Your task to perform on an android device: see tabs open on other devices in the chrome app Image 0: 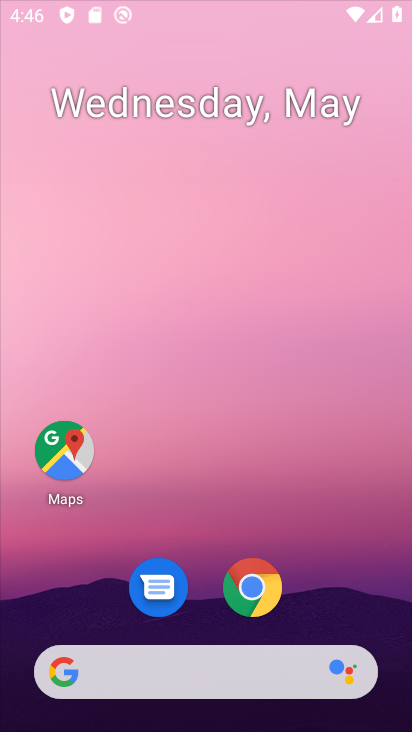
Step 0: click (194, 216)
Your task to perform on an android device: see tabs open on other devices in the chrome app Image 1: 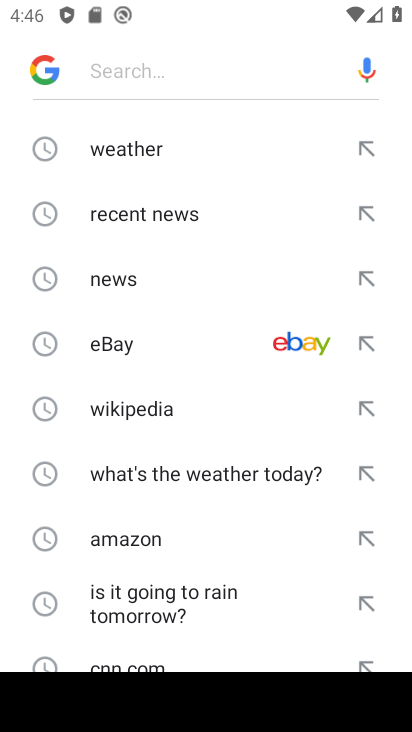
Step 1: press back button
Your task to perform on an android device: see tabs open on other devices in the chrome app Image 2: 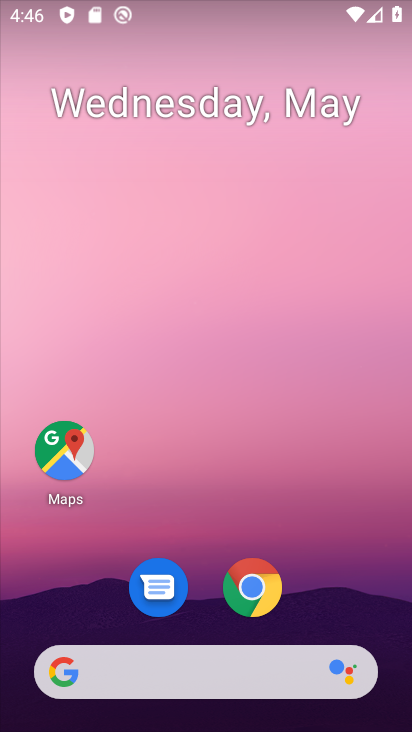
Step 2: drag from (314, 638) to (177, 207)
Your task to perform on an android device: see tabs open on other devices in the chrome app Image 3: 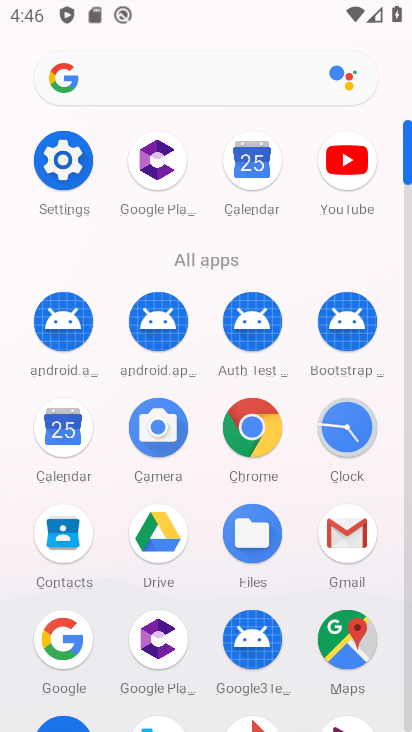
Step 3: click (245, 419)
Your task to perform on an android device: see tabs open on other devices in the chrome app Image 4: 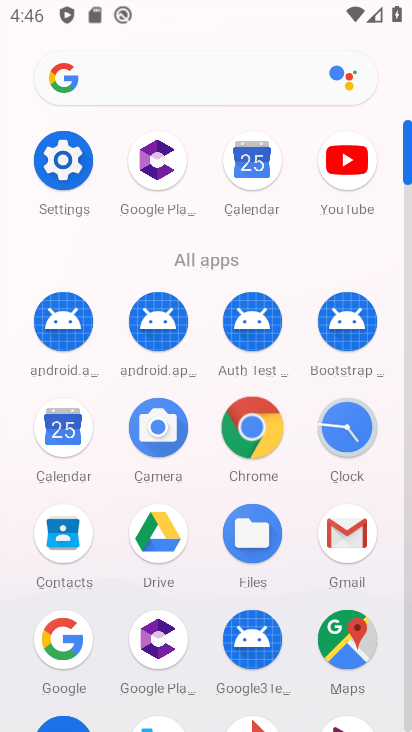
Step 4: click (245, 419)
Your task to perform on an android device: see tabs open on other devices in the chrome app Image 5: 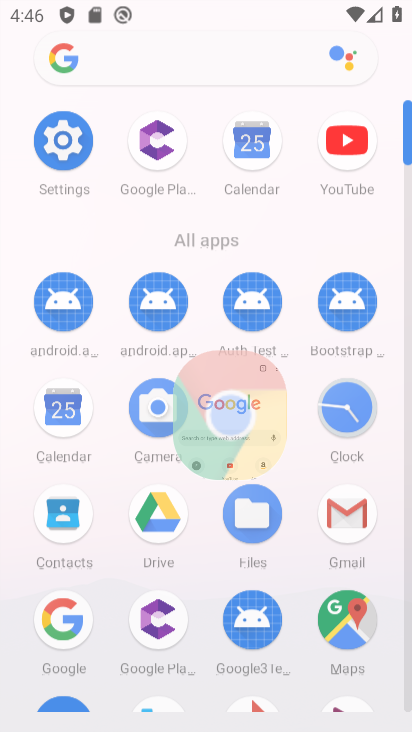
Step 5: click (246, 418)
Your task to perform on an android device: see tabs open on other devices in the chrome app Image 6: 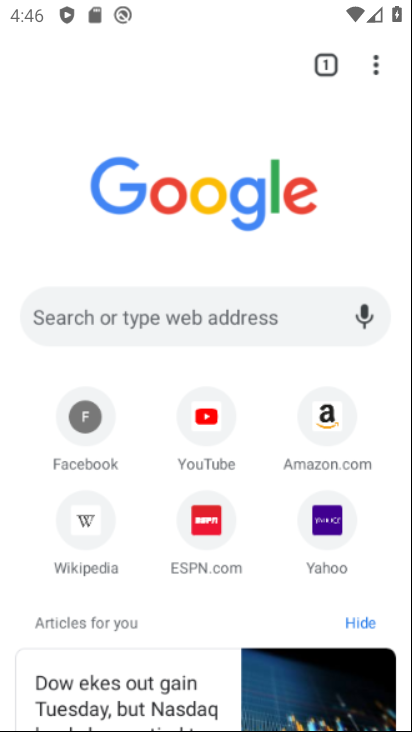
Step 6: click (246, 418)
Your task to perform on an android device: see tabs open on other devices in the chrome app Image 7: 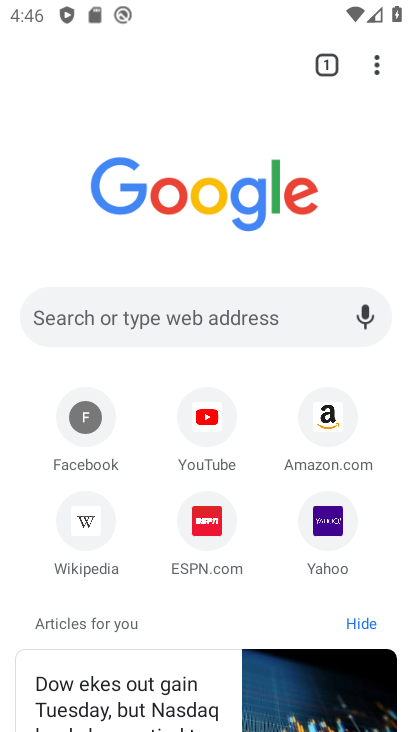
Step 7: drag from (252, 425) to (197, 227)
Your task to perform on an android device: see tabs open on other devices in the chrome app Image 8: 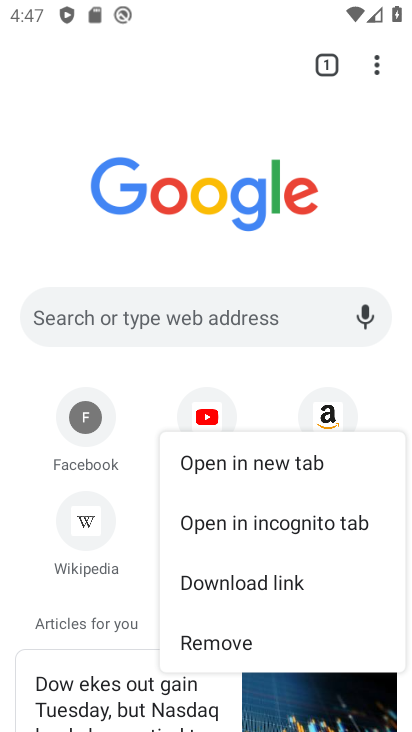
Step 8: click (309, 242)
Your task to perform on an android device: see tabs open on other devices in the chrome app Image 9: 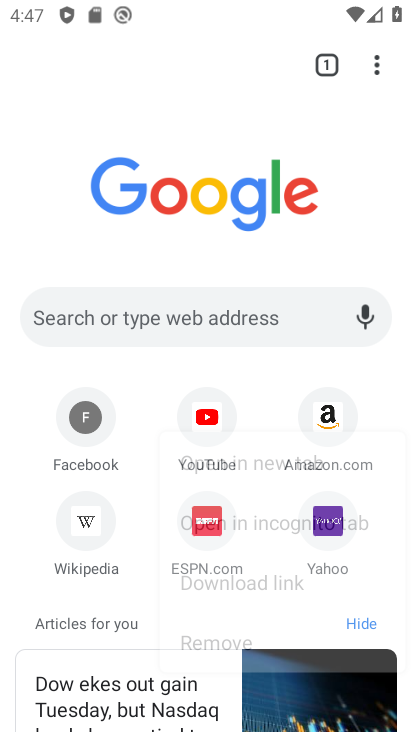
Step 9: click (326, 237)
Your task to perform on an android device: see tabs open on other devices in the chrome app Image 10: 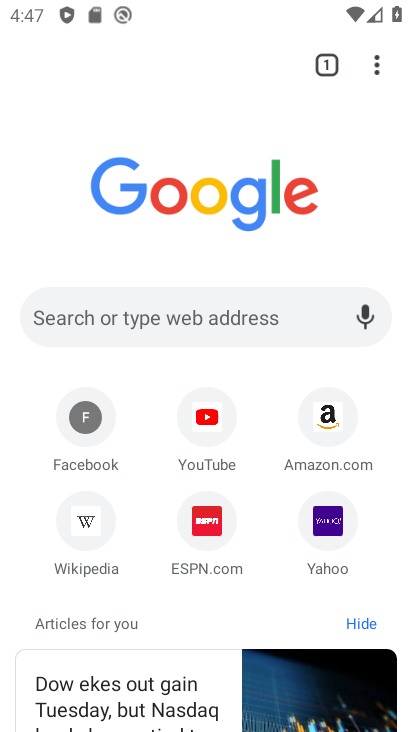
Step 10: click (332, 233)
Your task to perform on an android device: see tabs open on other devices in the chrome app Image 11: 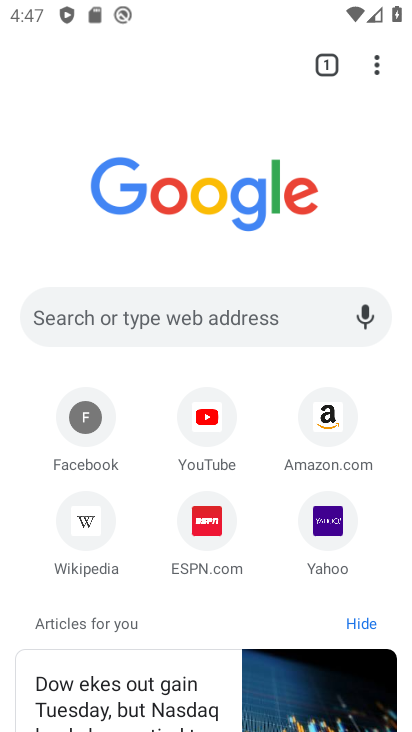
Step 11: drag from (373, 64) to (124, 135)
Your task to perform on an android device: see tabs open on other devices in the chrome app Image 12: 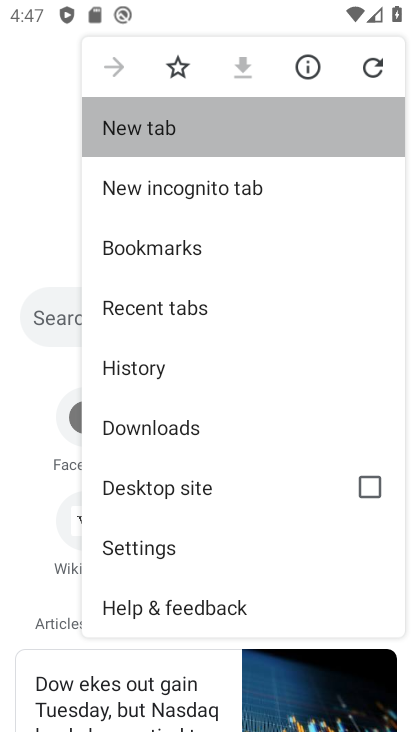
Step 12: click (124, 135)
Your task to perform on an android device: see tabs open on other devices in the chrome app Image 13: 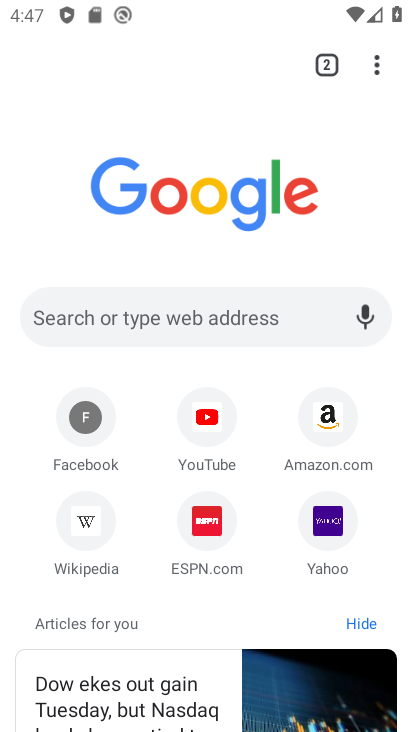
Step 13: click (374, 52)
Your task to perform on an android device: see tabs open on other devices in the chrome app Image 14: 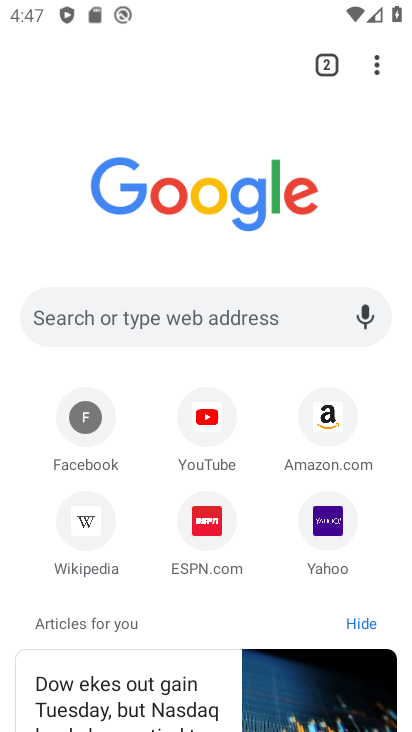
Step 14: drag from (378, 57) to (129, 133)
Your task to perform on an android device: see tabs open on other devices in the chrome app Image 15: 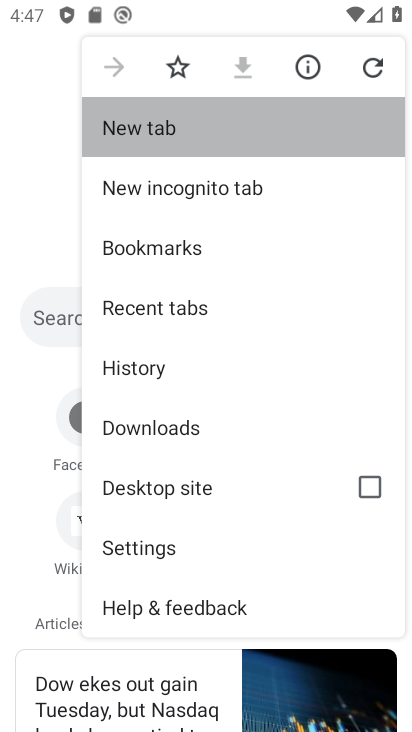
Step 15: click (129, 133)
Your task to perform on an android device: see tabs open on other devices in the chrome app Image 16: 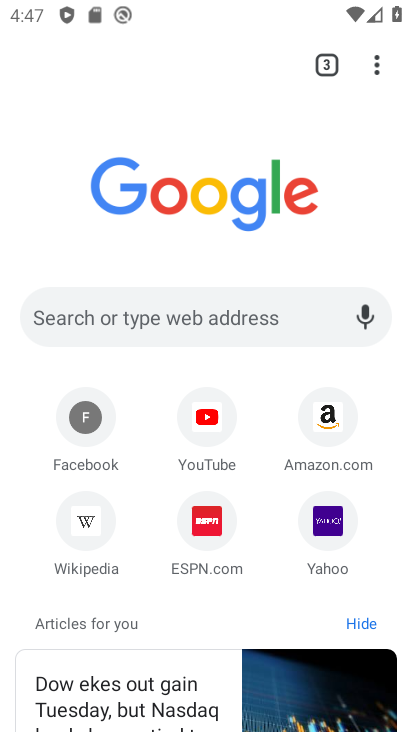
Step 16: drag from (369, 65) to (126, 306)
Your task to perform on an android device: see tabs open on other devices in the chrome app Image 17: 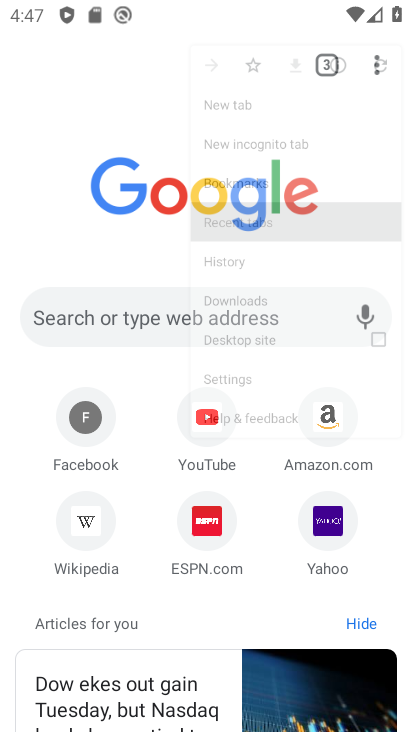
Step 17: click (126, 306)
Your task to perform on an android device: see tabs open on other devices in the chrome app Image 18: 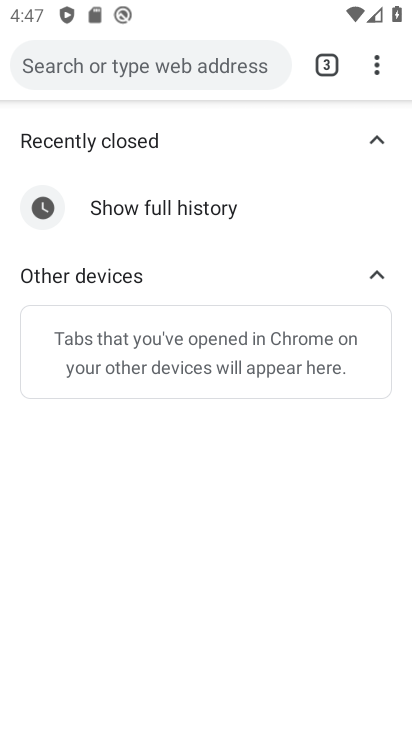
Step 18: task complete